Your task to perform on an android device: change your default location settings in chrome Image 0: 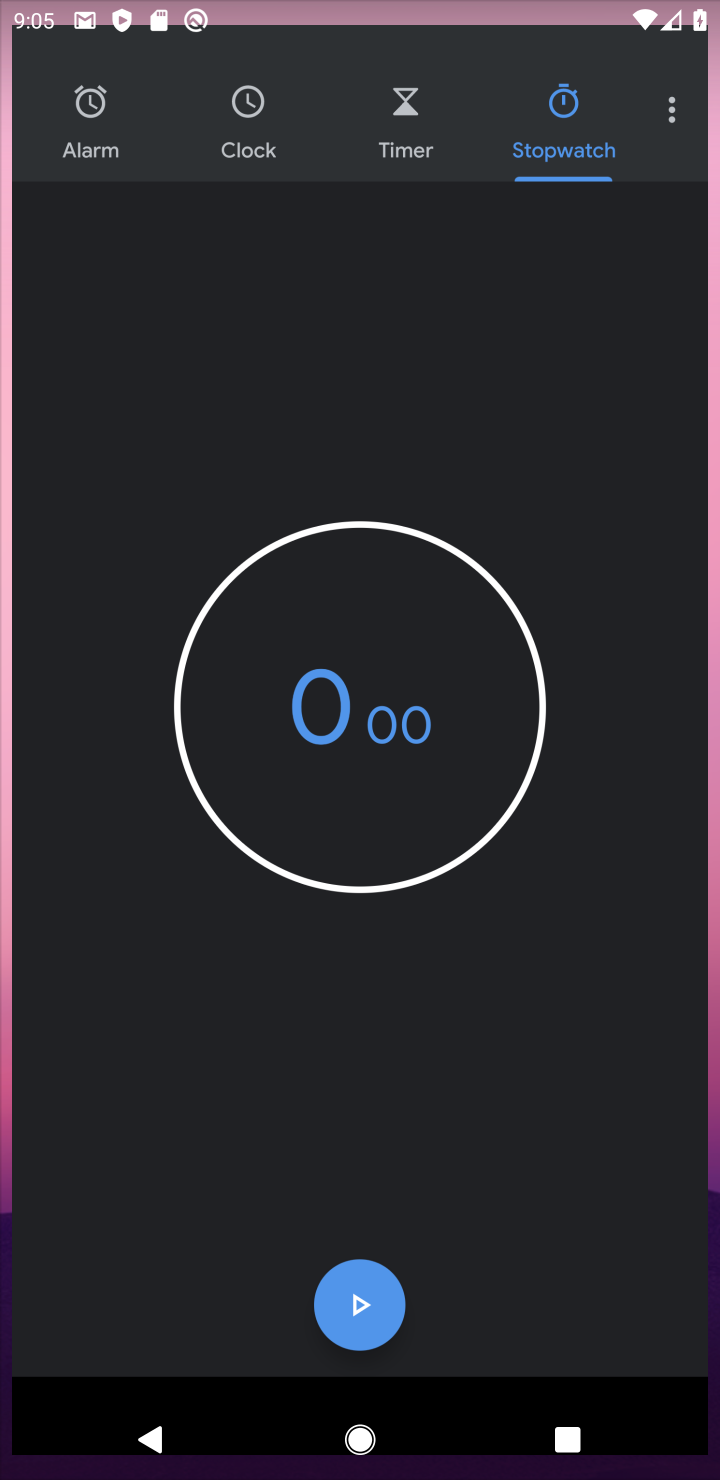
Step 0: press back button
Your task to perform on an android device: change your default location settings in chrome Image 1: 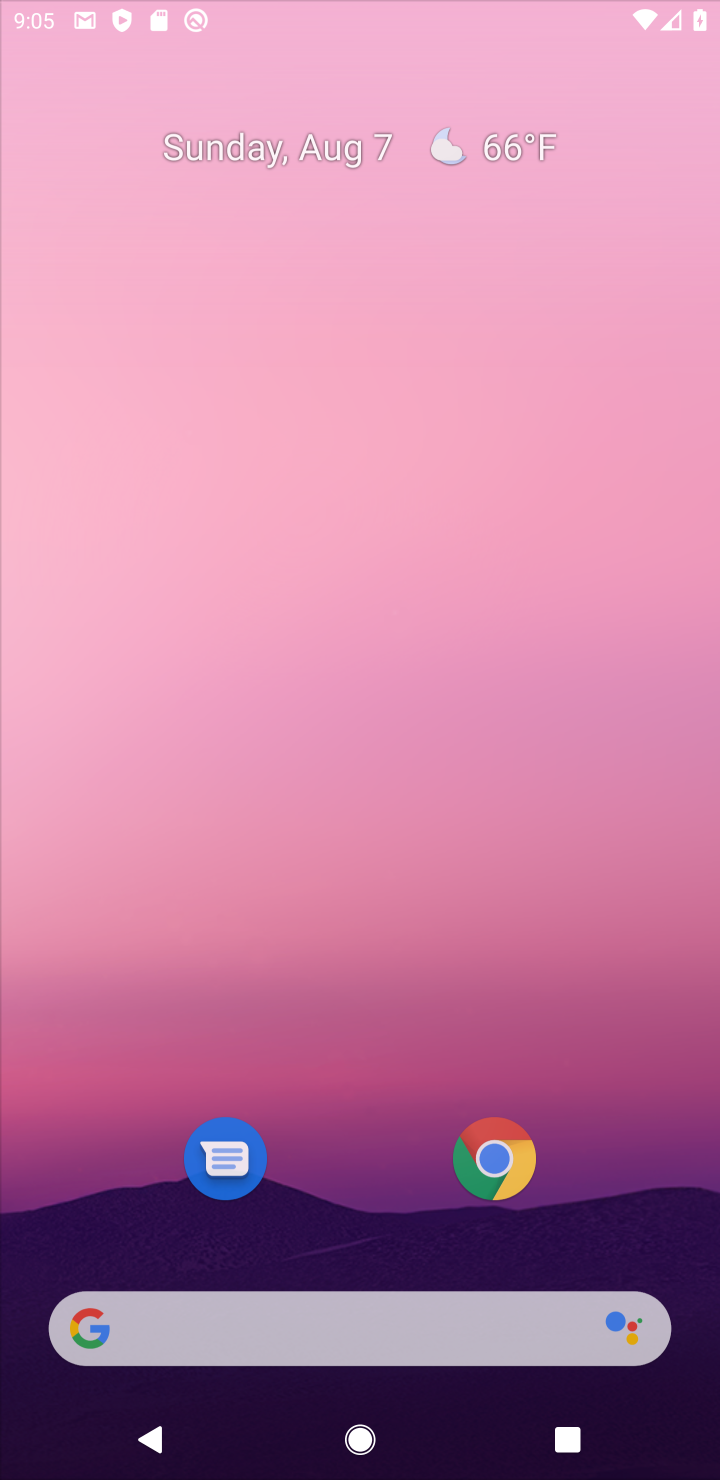
Step 1: press home button
Your task to perform on an android device: change your default location settings in chrome Image 2: 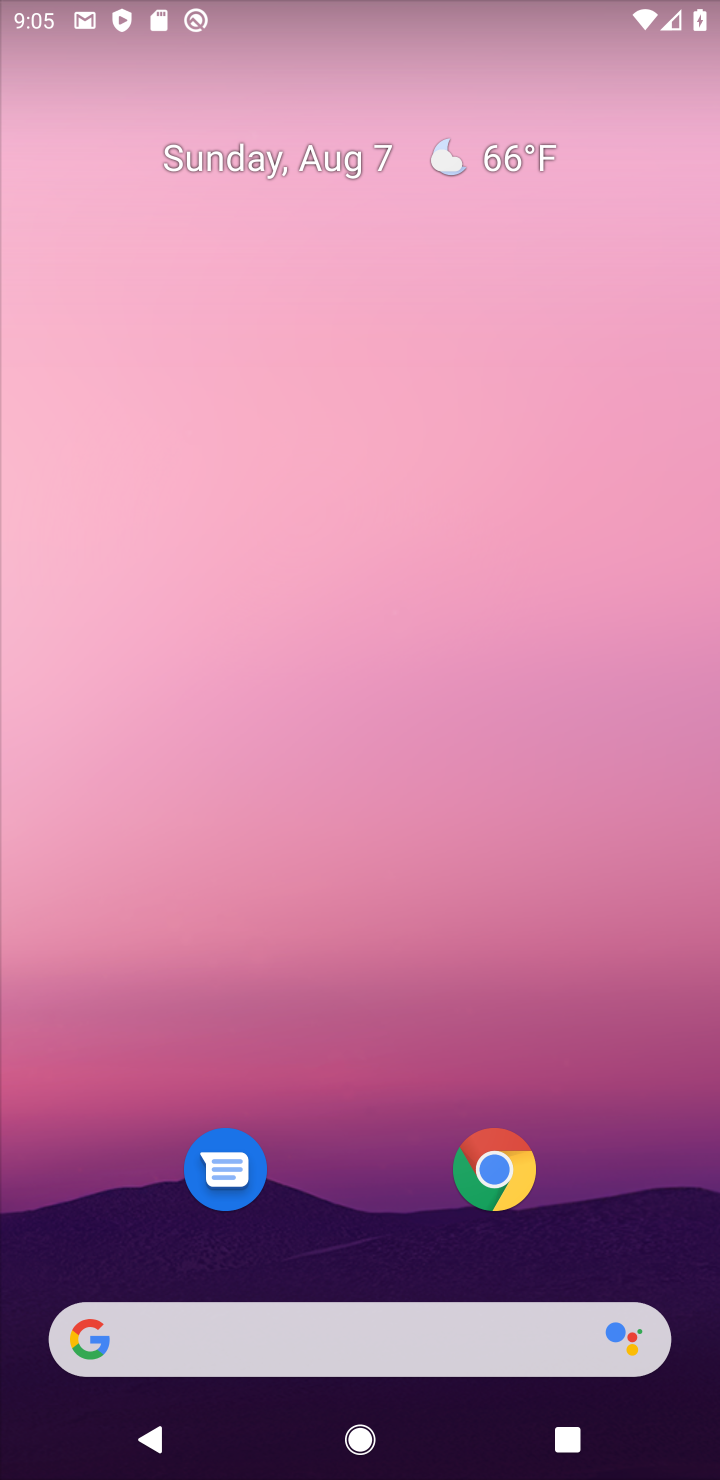
Step 2: click (500, 1168)
Your task to perform on an android device: change your default location settings in chrome Image 3: 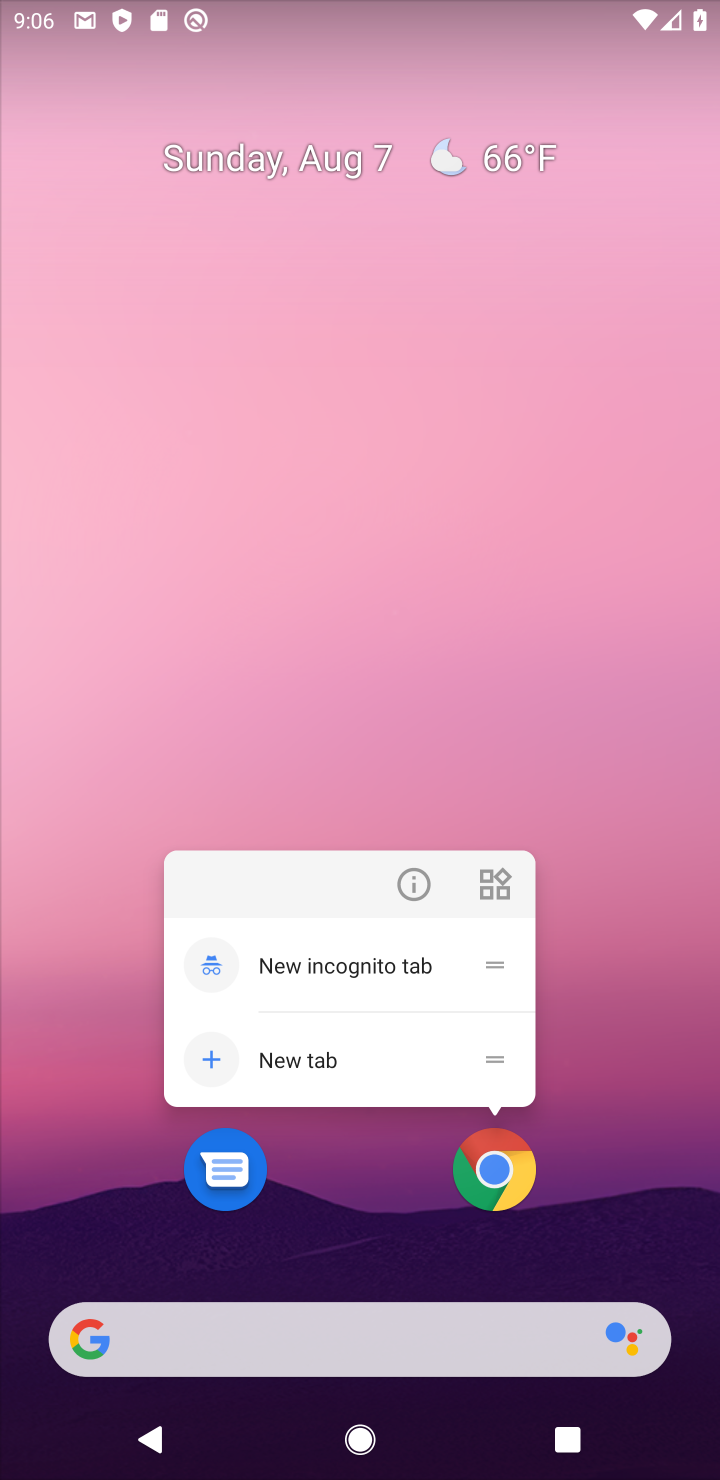
Step 3: click (522, 1167)
Your task to perform on an android device: change your default location settings in chrome Image 4: 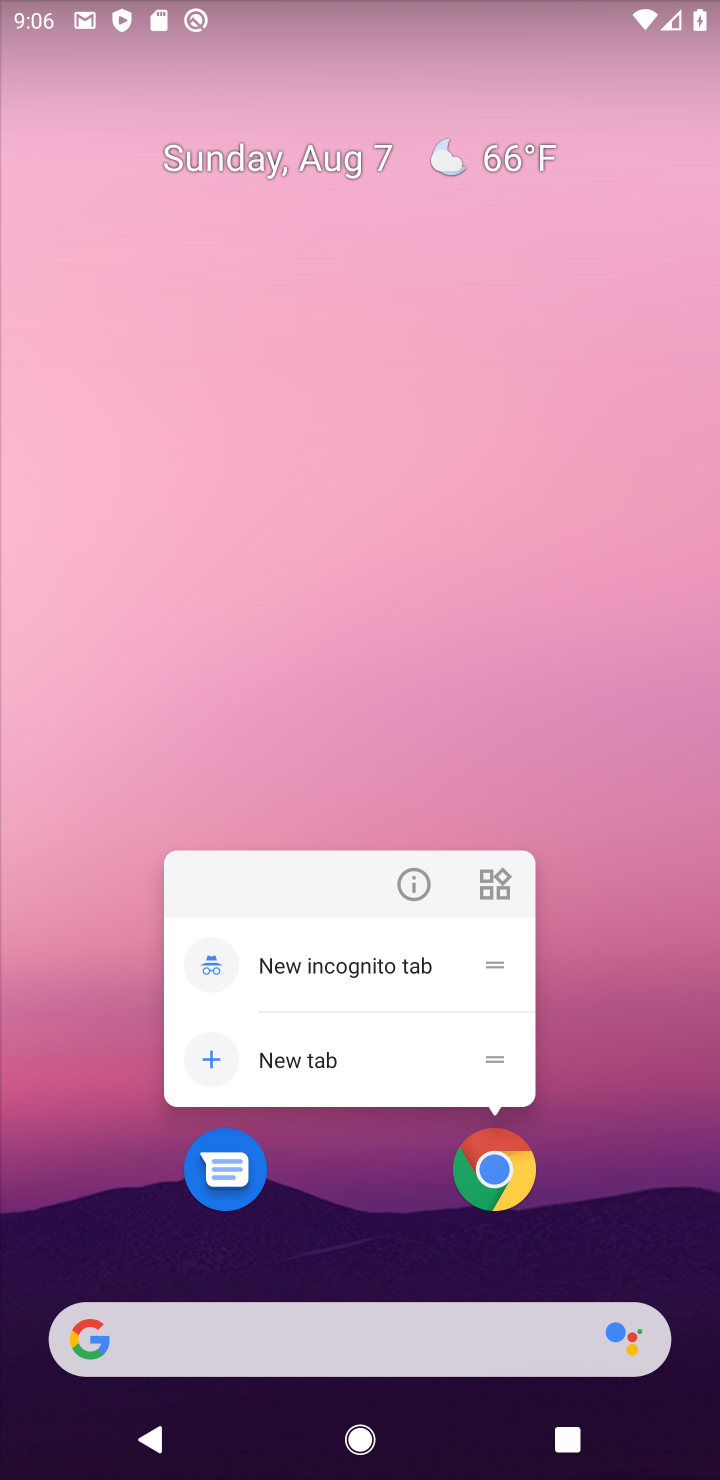
Step 4: click (525, 1158)
Your task to perform on an android device: change your default location settings in chrome Image 5: 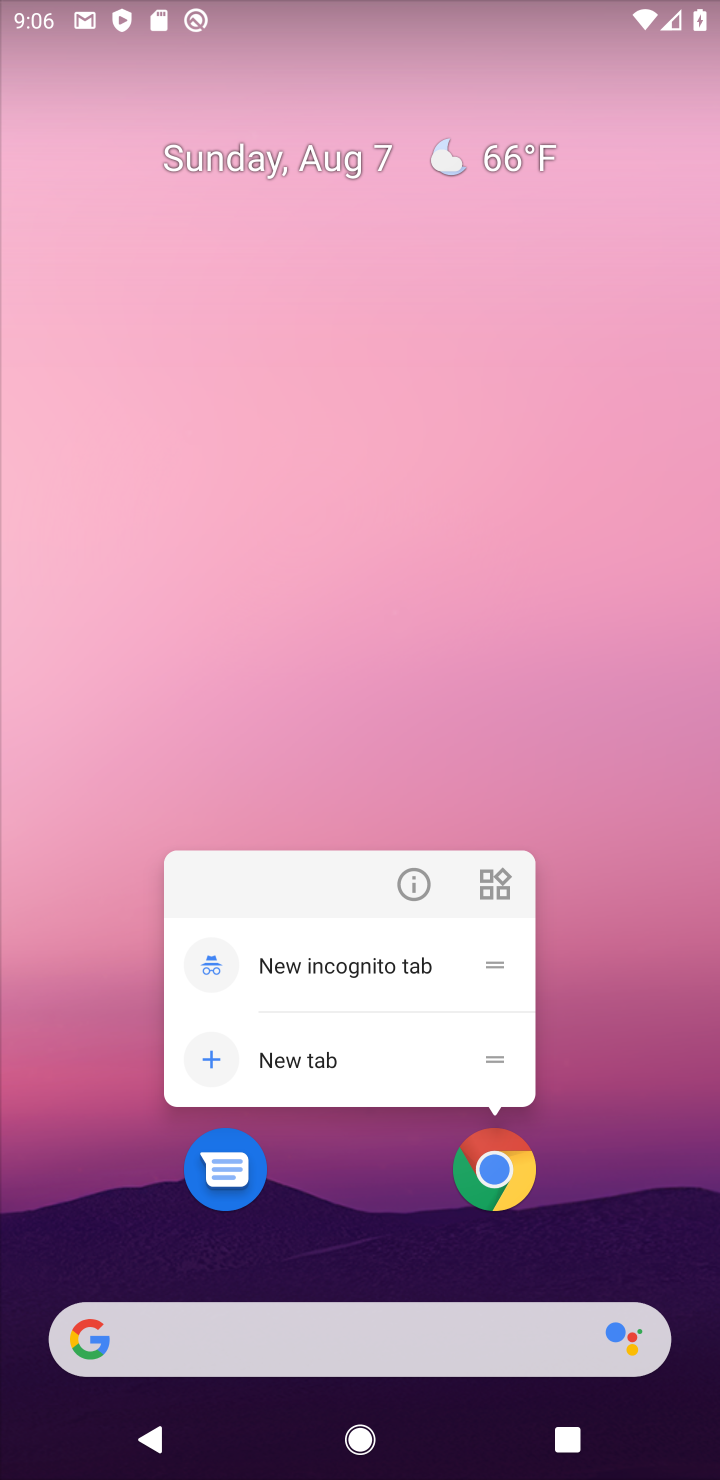
Step 5: click (494, 1162)
Your task to perform on an android device: change your default location settings in chrome Image 6: 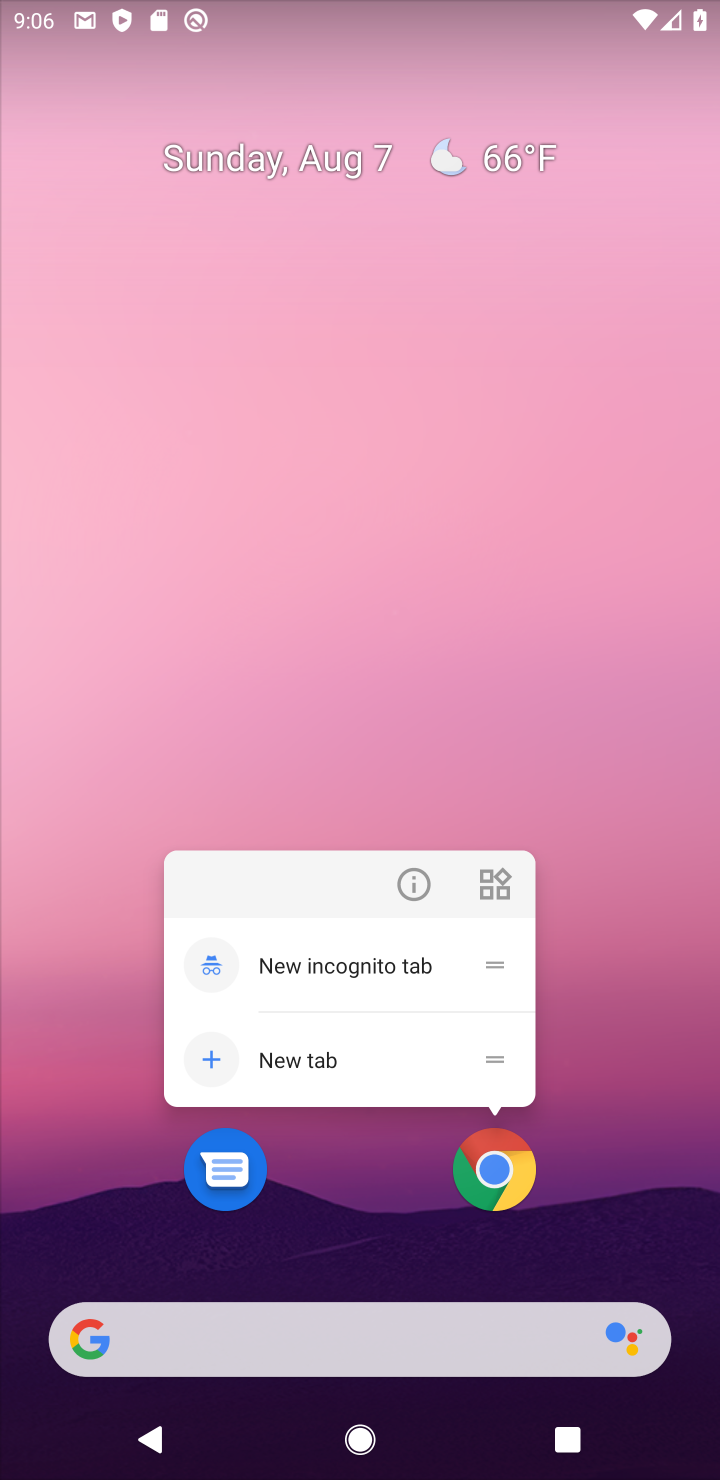
Step 6: click (478, 1214)
Your task to perform on an android device: change your default location settings in chrome Image 7: 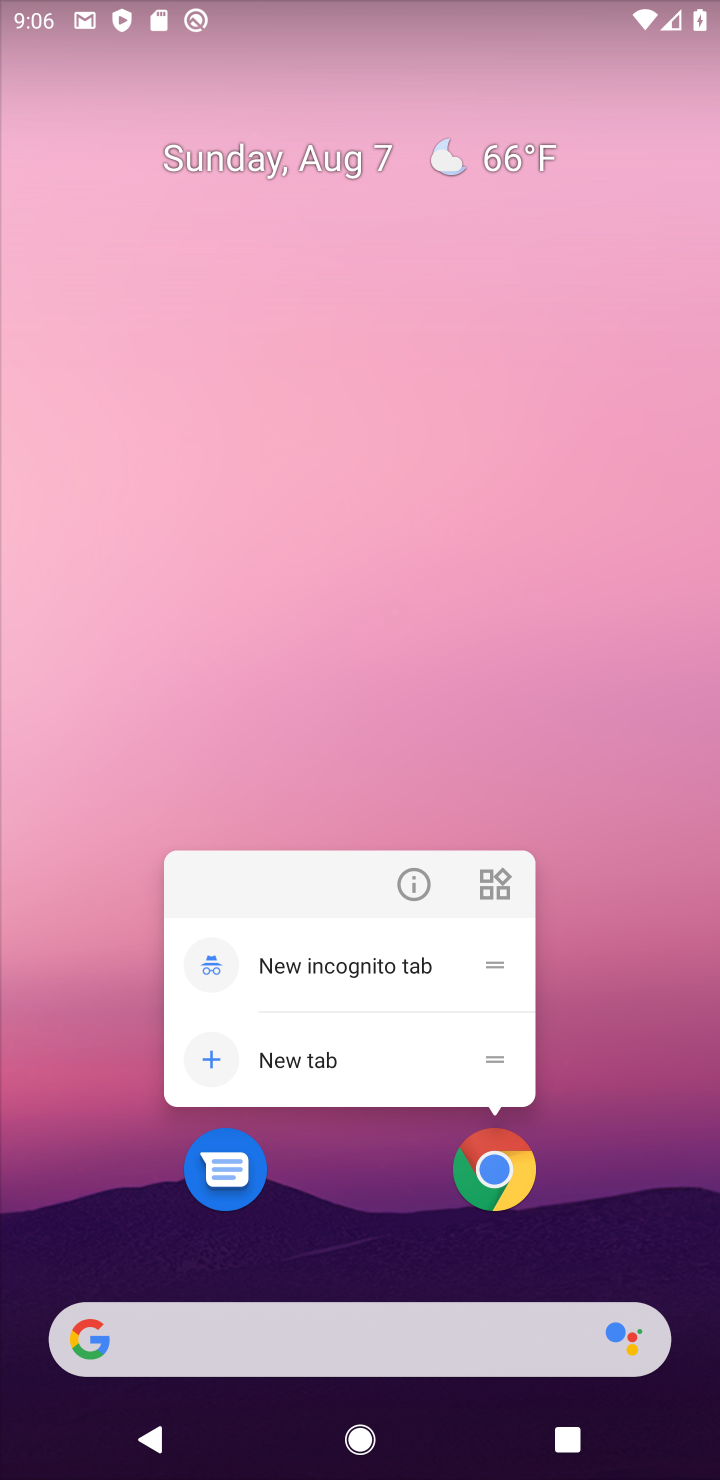
Step 7: click (498, 1175)
Your task to perform on an android device: change your default location settings in chrome Image 8: 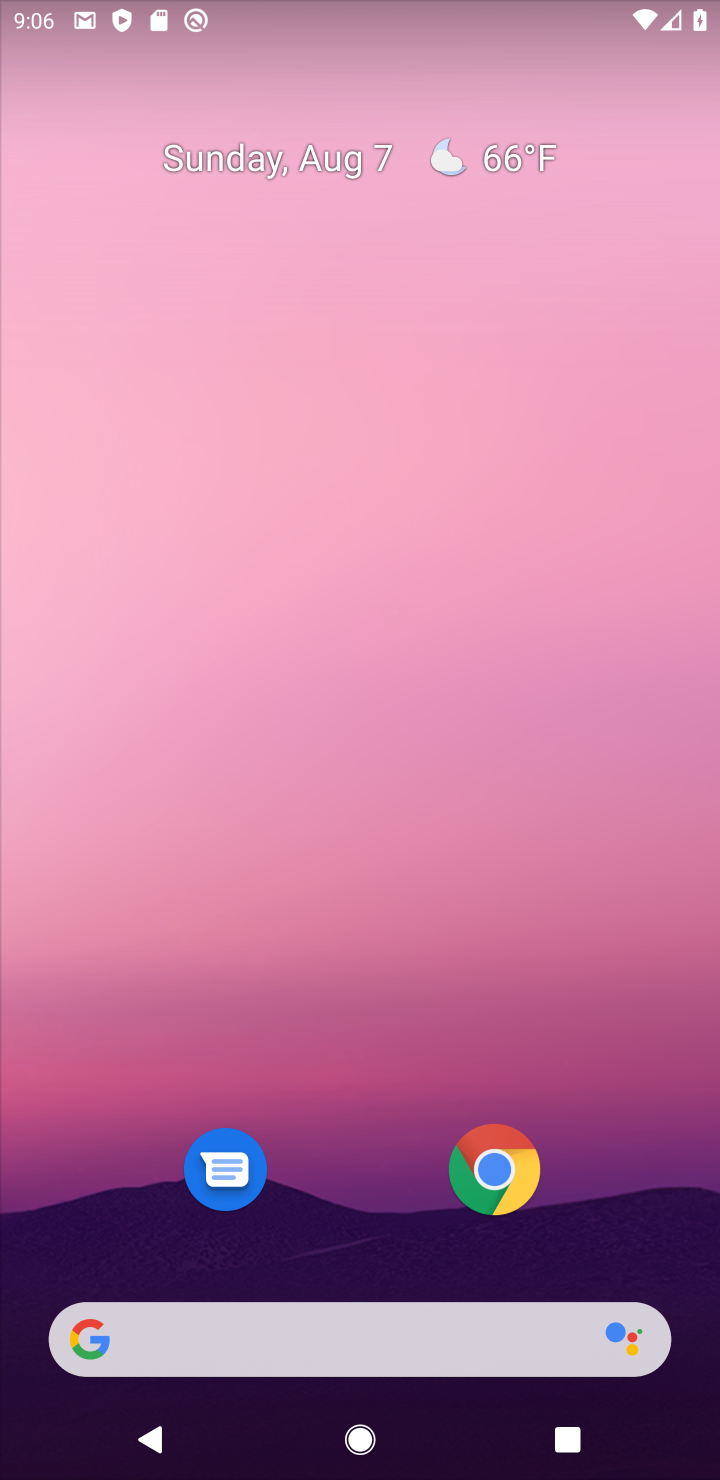
Step 8: click (502, 1167)
Your task to perform on an android device: change your default location settings in chrome Image 9: 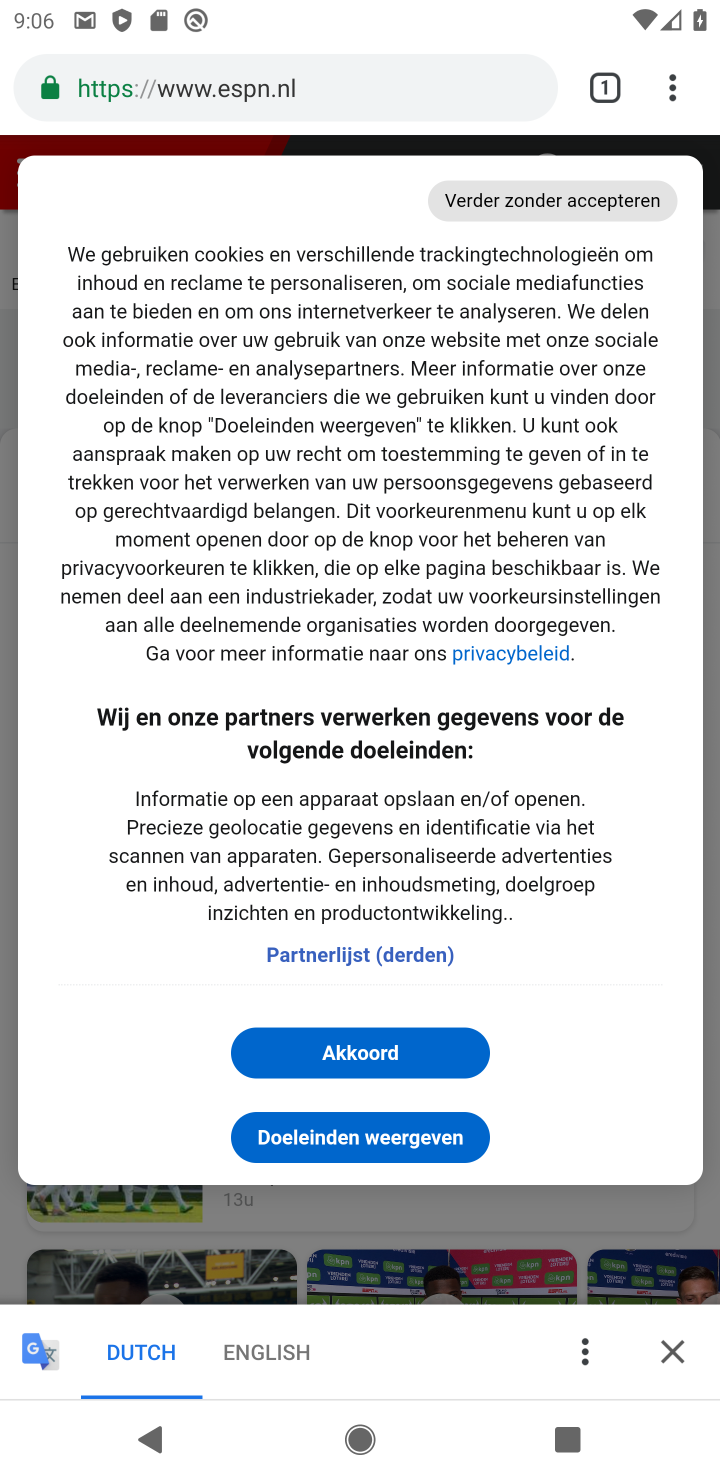
Step 9: click (674, 98)
Your task to perform on an android device: change your default location settings in chrome Image 10: 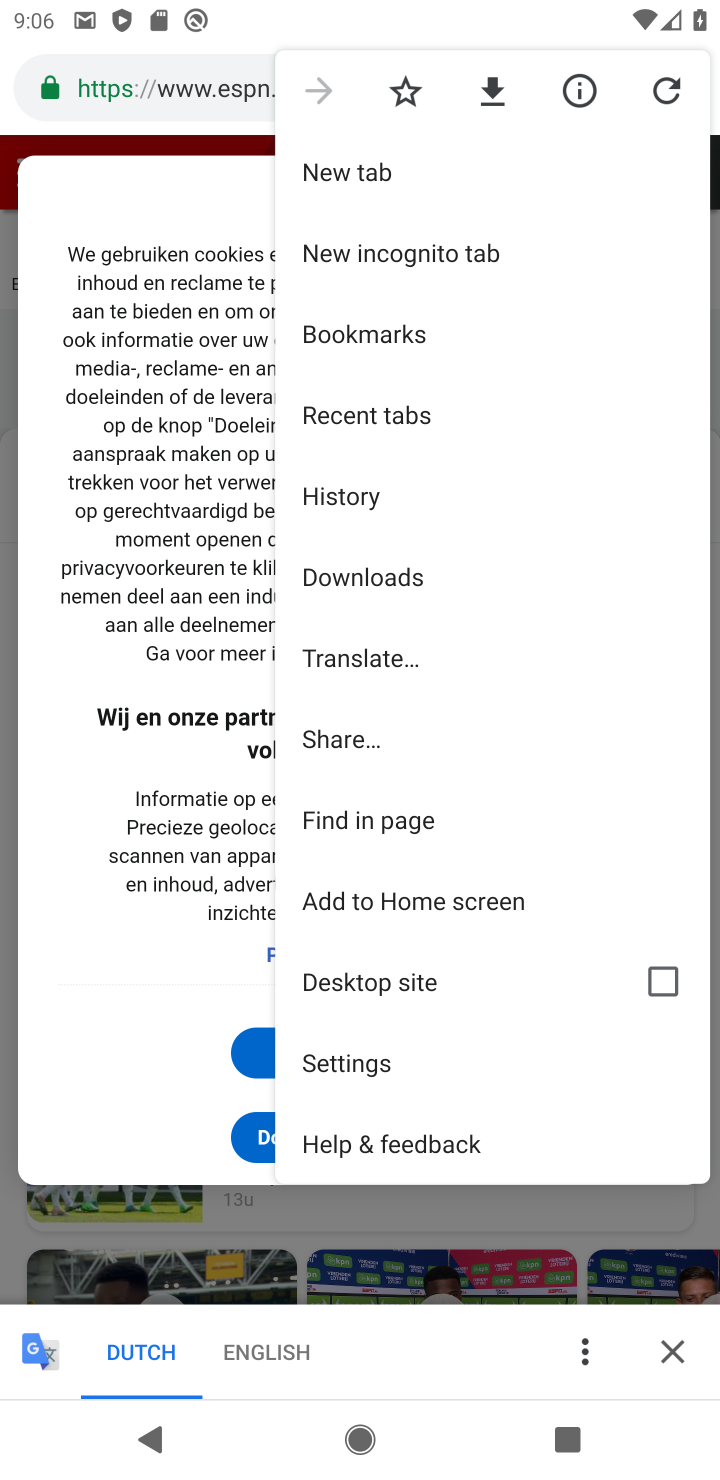
Step 10: click (397, 1066)
Your task to perform on an android device: change your default location settings in chrome Image 11: 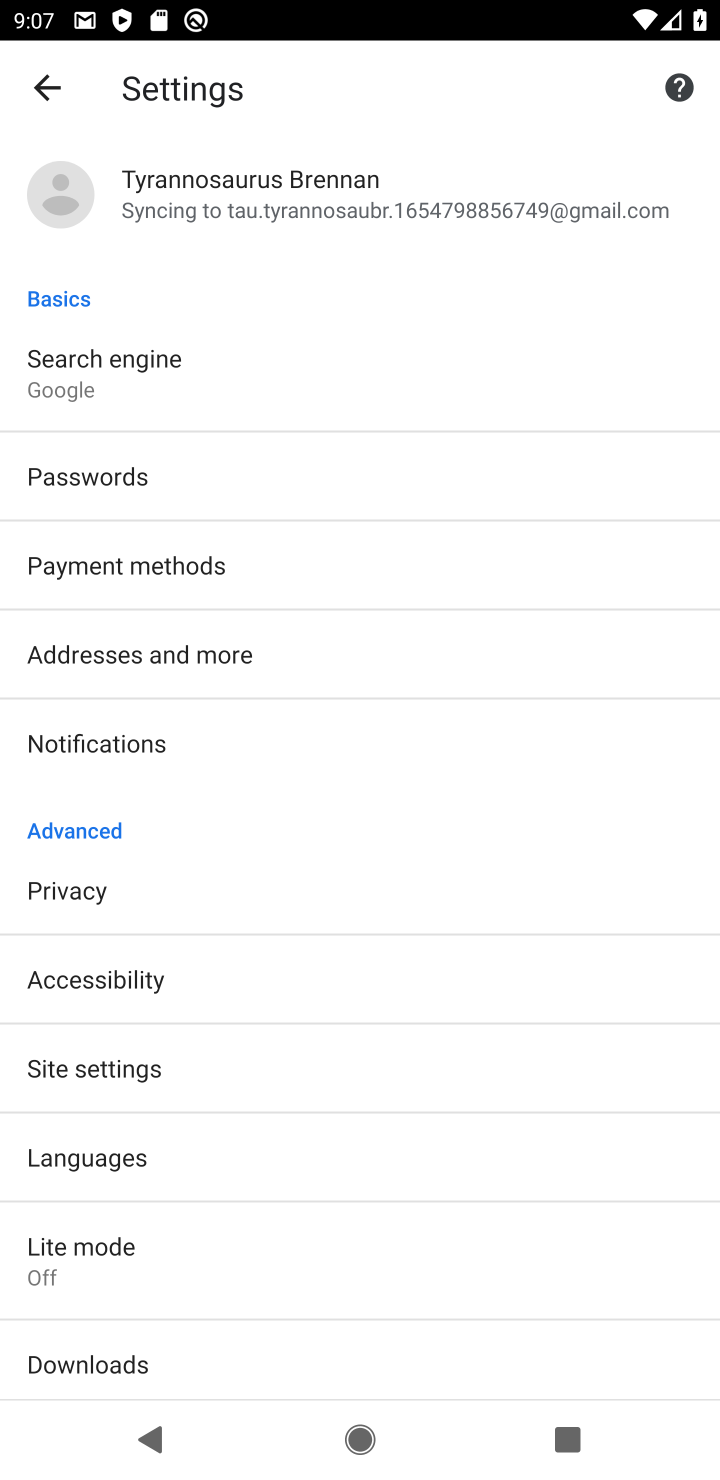
Step 11: click (123, 1095)
Your task to perform on an android device: change your default location settings in chrome Image 12: 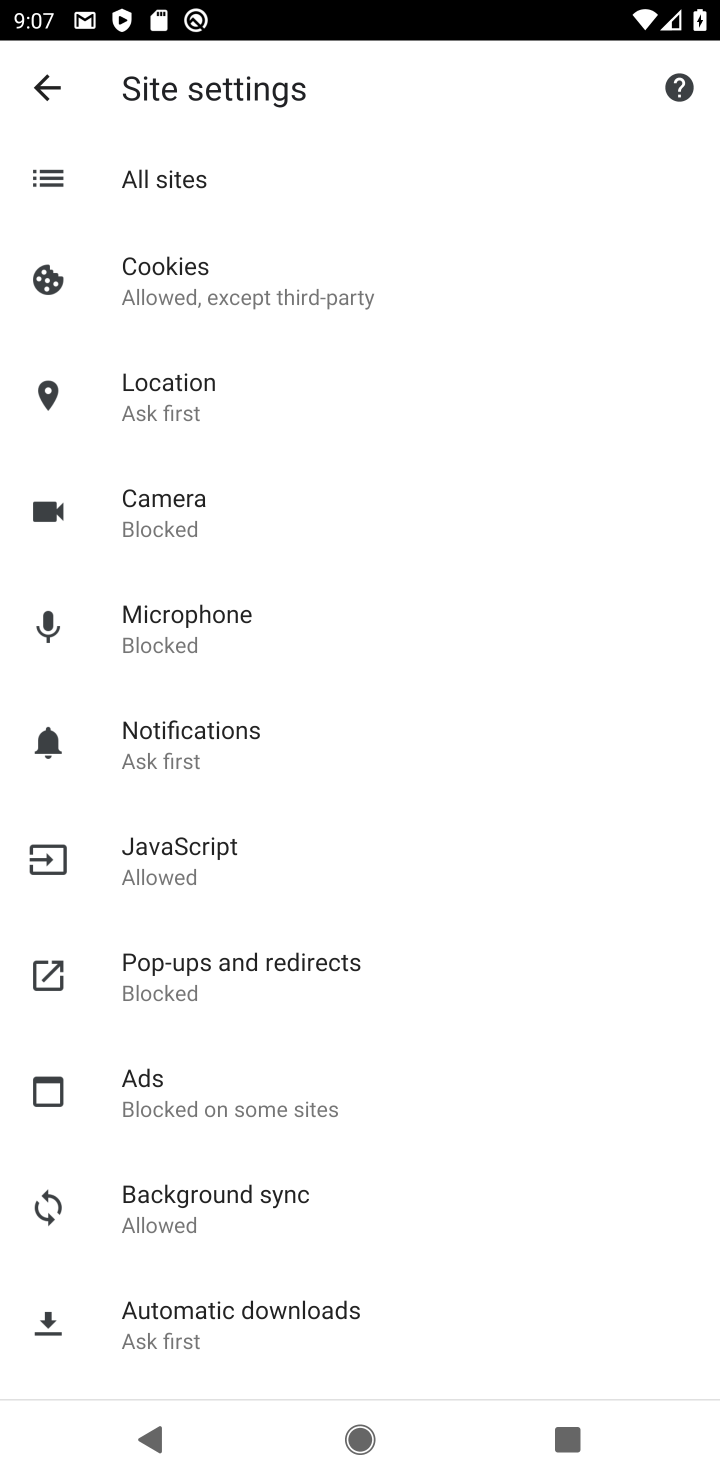
Step 12: click (174, 405)
Your task to perform on an android device: change your default location settings in chrome Image 13: 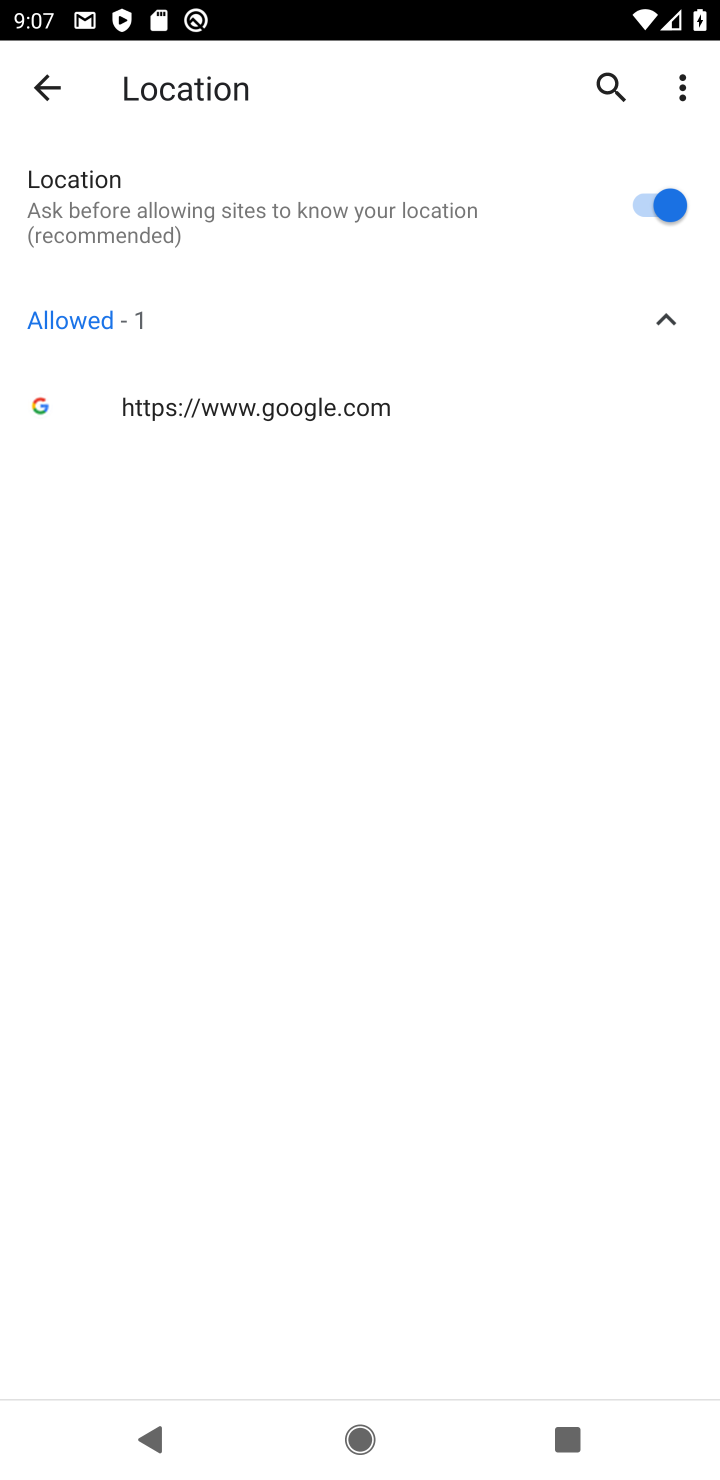
Step 13: click (662, 210)
Your task to perform on an android device: change your default location settings in chrome Image 14: 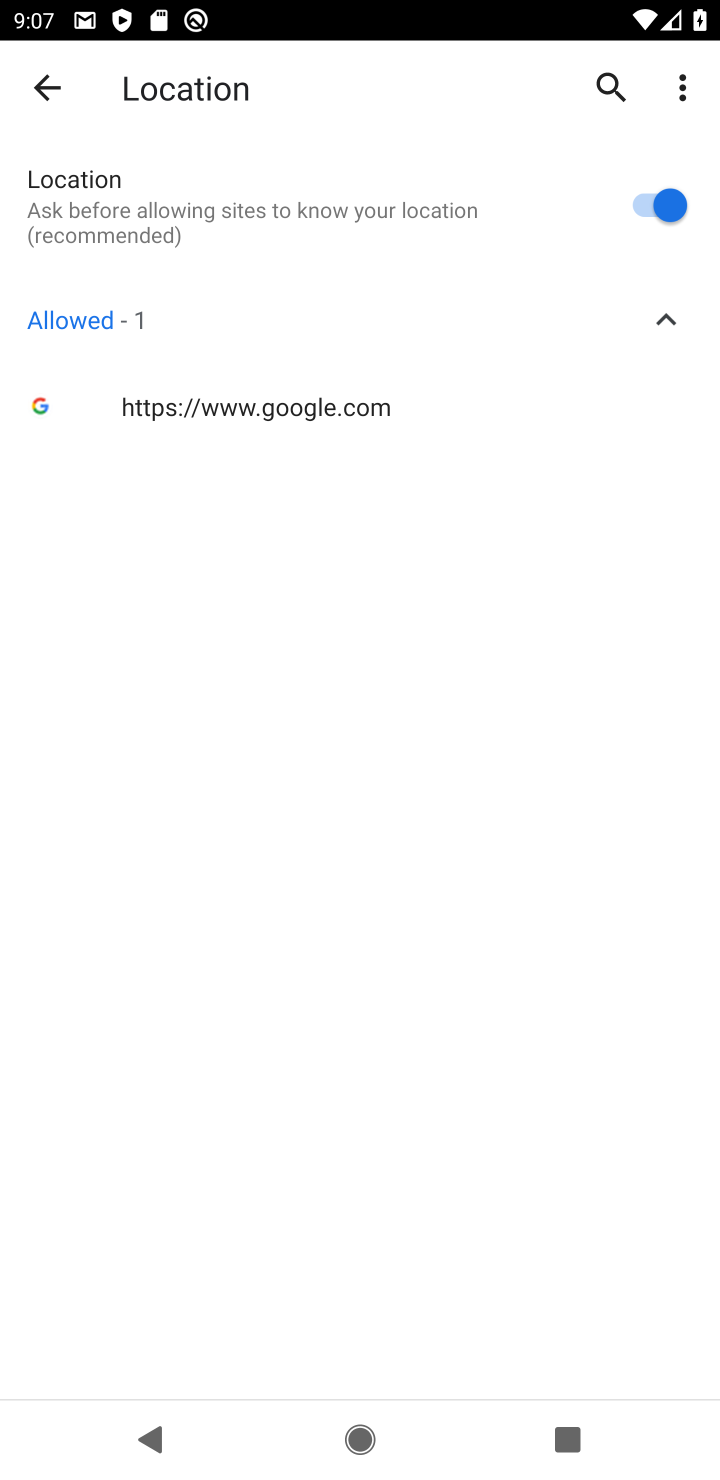
Step 14: task complete